Your task to perform on an android device: Search for the best books on Goodreads Image 0: 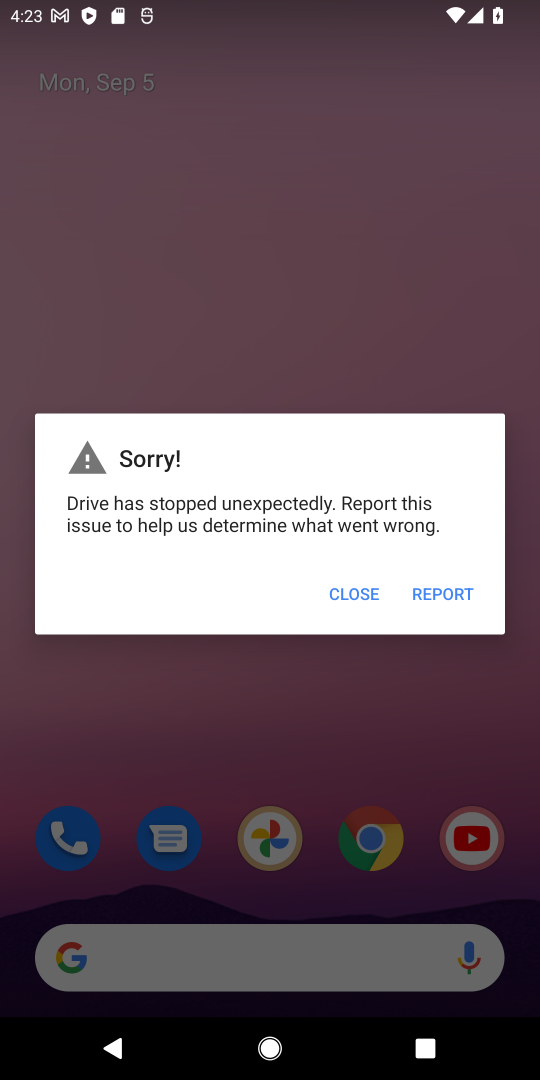
Step 0: press home button
Your task to perform on an android device: Search for the best books on Goodreads Image 1: 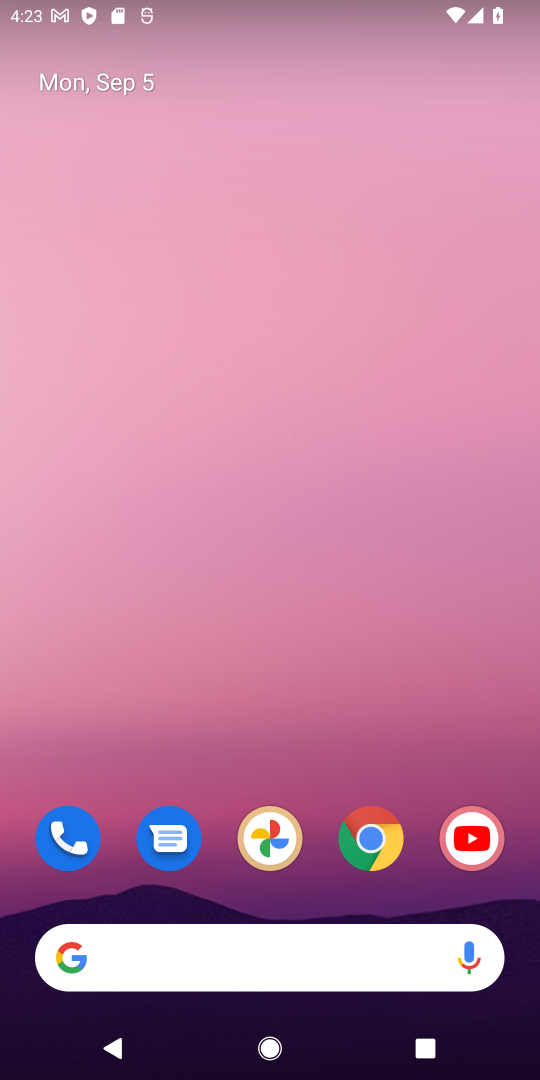
Step 1: drag from (374, 570) to (308, 0)
Your task to perform on an android device: Search for the best books on Goodreads Image 2: 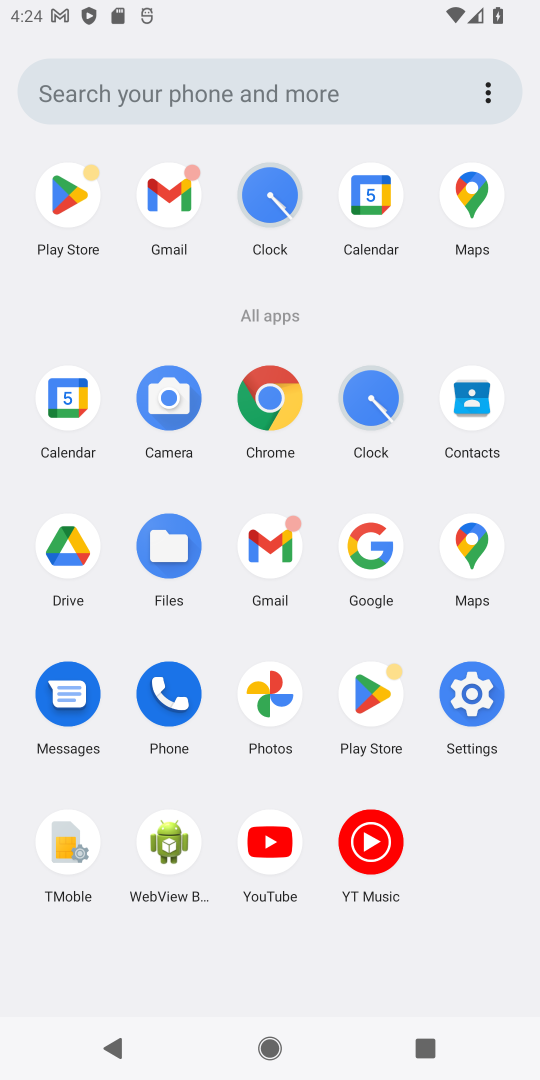
Step 2: click (280, 410)
Your task to perform on an android device: Search for the best books on Goodreads Image 3: 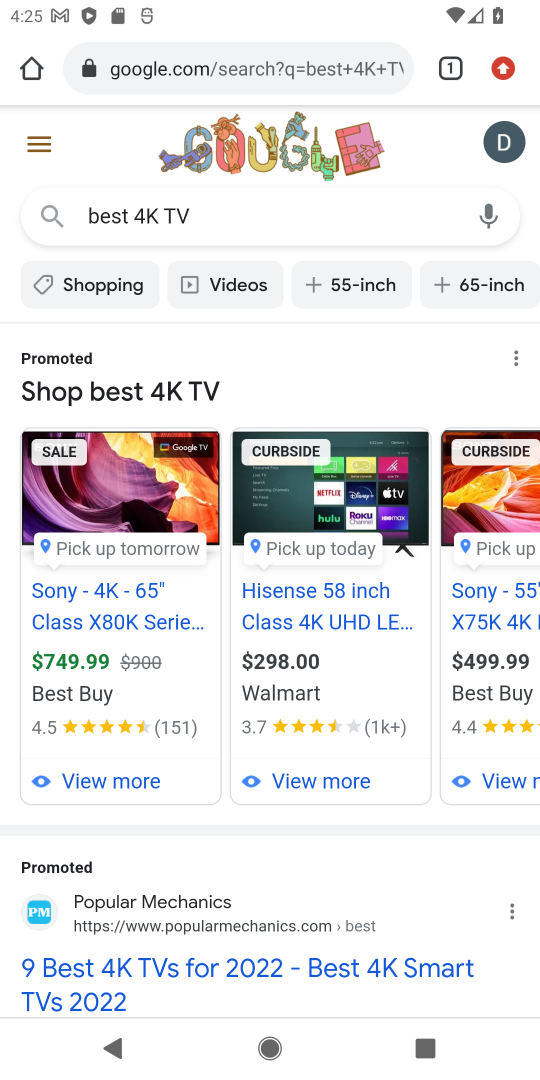
Step 3: task complete